Your task to perform on an android device: Open the calendar and show me this week's events Image 0: 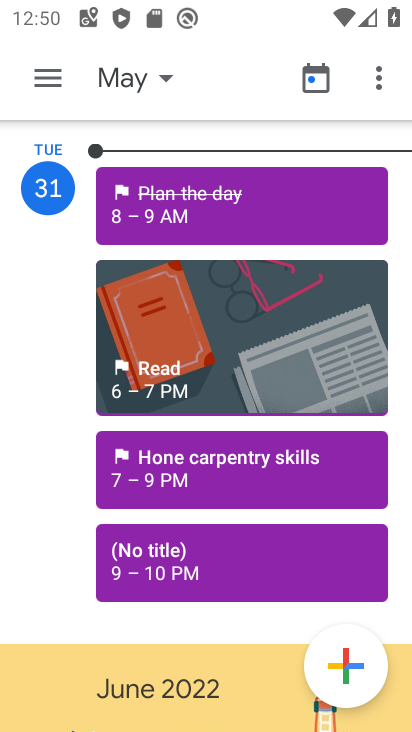
Step 0: click (27, 80)
Your task to perform on an android device: Open the calendar and show me this week's events Image 1: 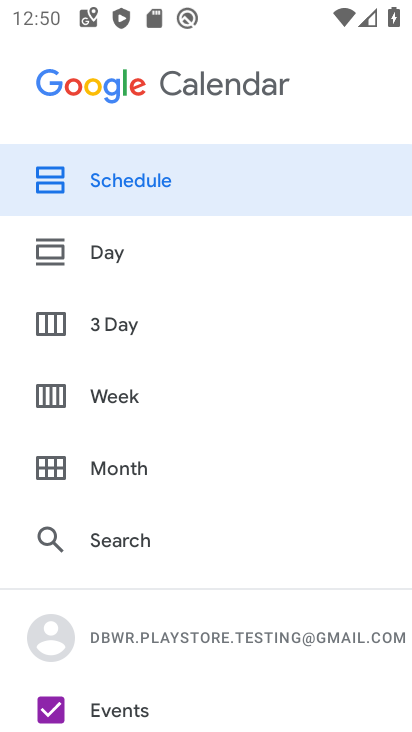
Step 1: click (89, 401)
Your task to perform on an android device: Open the calendar and show me this week's events Image 2: 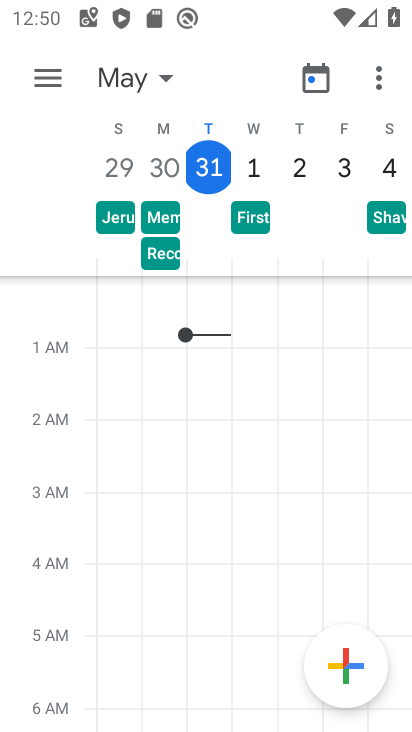
Step 2: click (49, 79)
Your task to perform on an android device: Open the calendar and show me this week's events Image 3: 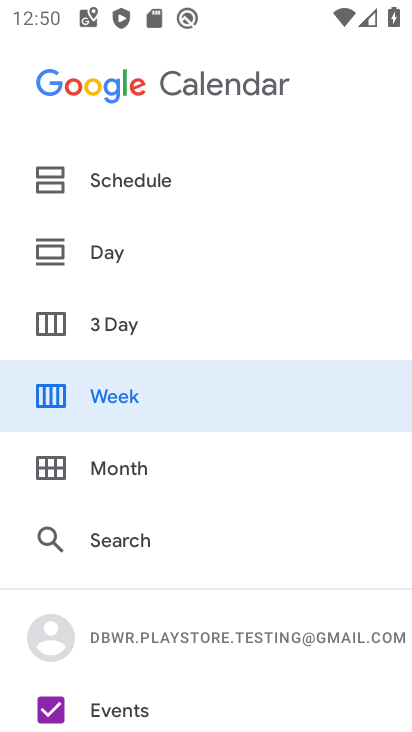
Step 3: drag from (206, 669) to (227, 139)
Your task to perform on an android device: Open the calendar and show me this week's events Image 4: 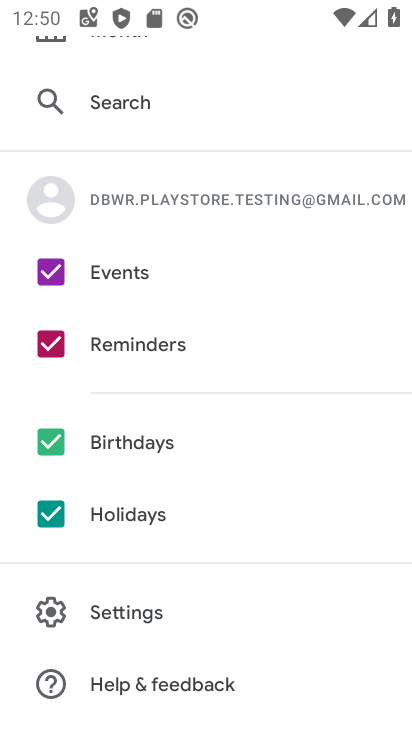
Step 4: click (51, 346)
Your task to perform on an android device: Open the calendar and show me this week's events Image 5: 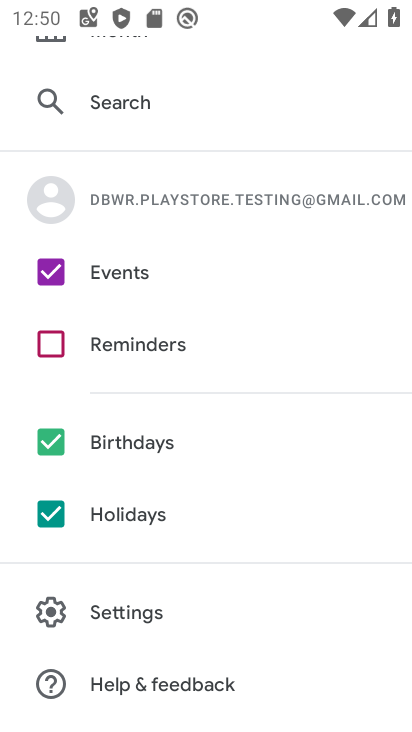
Step 5: click (52, 447)
Your task to perform on an android device: Open the calendar and show me this week's events Image 6: 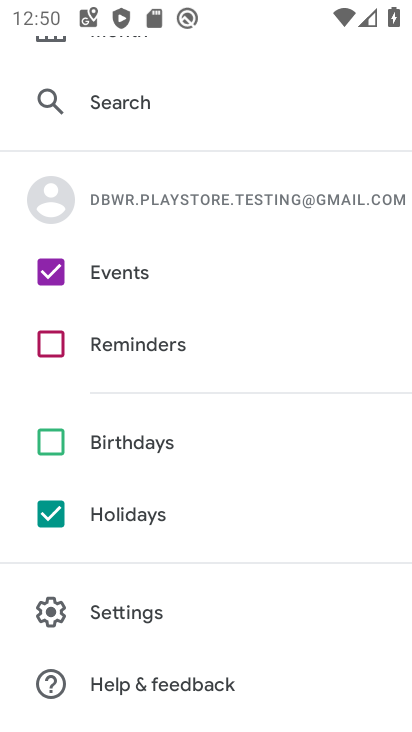
Step 6: click (53, 516)
Your task to perform on an android device: Open the calendar and show me this week's events Image 7: 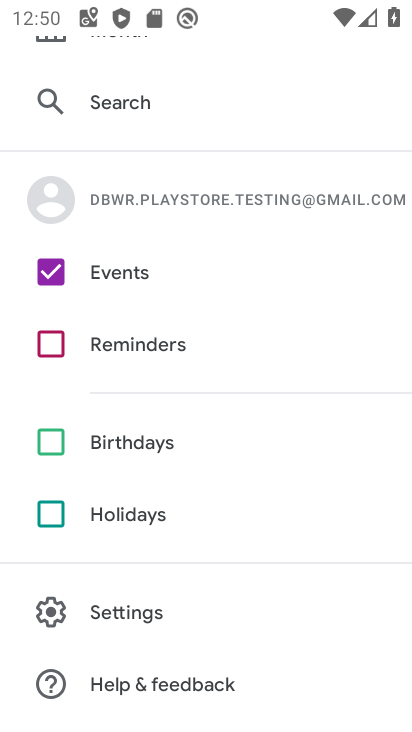
Step 7: task complete